Your task to perform on an android device: check android version Image 0: 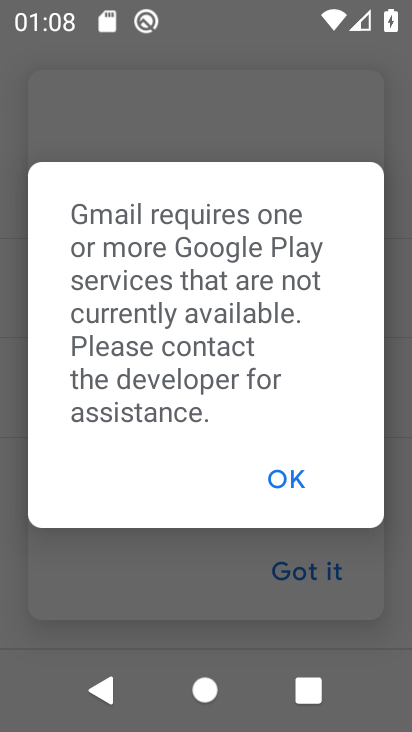
Step 0: drag from (268, 483) to (275, 110)
Your task to perform on an android device: check android version Image 1: 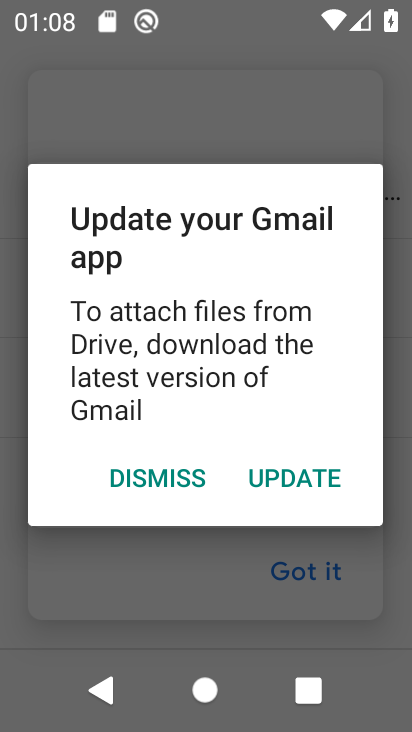
Step 1: press home button
Your task to perform on an android device: check android version Image 2: 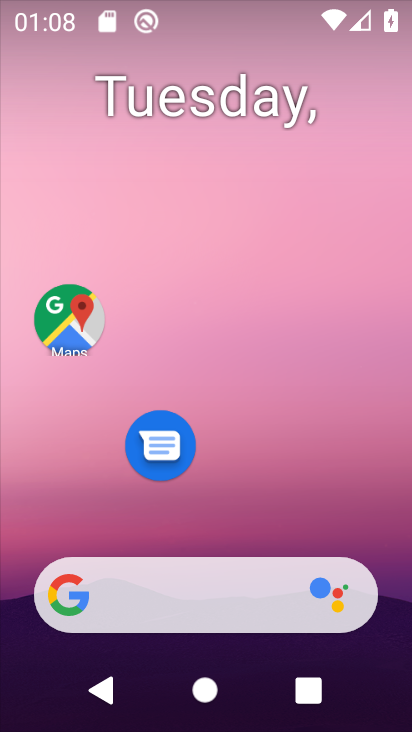
Step 2: drag from (273, 478) to (265, 89)
Your task to perform on an android device: check android version Image 3: 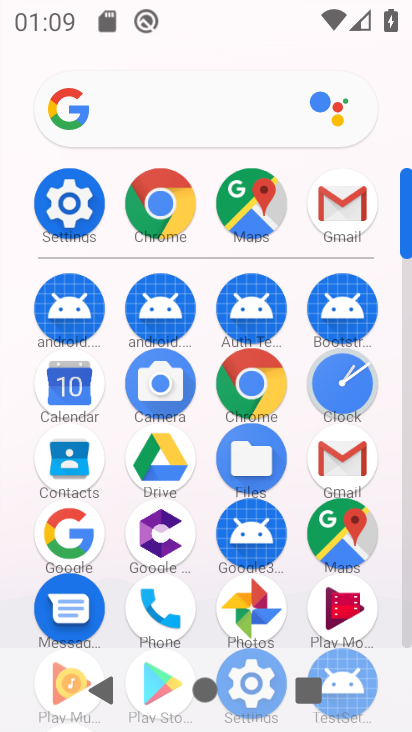
Step 3: click (47, 204)
Your task to perform on an android device: check android version Image 4: 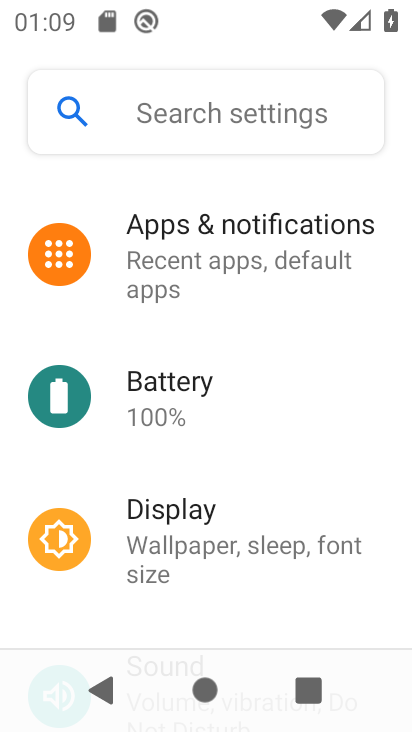
Step 4: drag from (244, 473) to (267, 125)
Your task to perform on an android device: check android version Image 5: 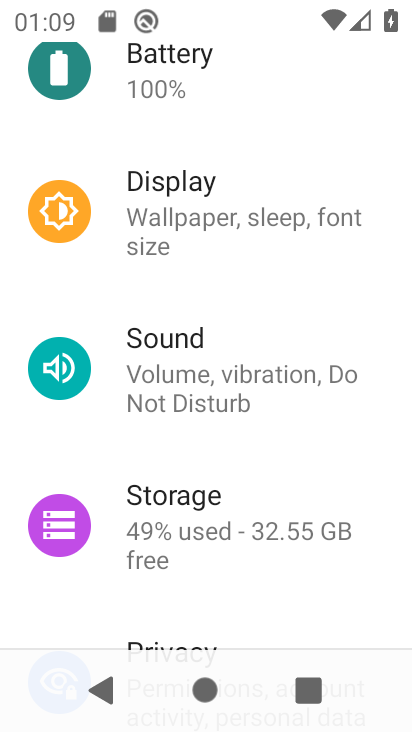
Step 5: drag from (248, 458) to (229, 146)
Your task to perform on an android device: check android version Image 6: 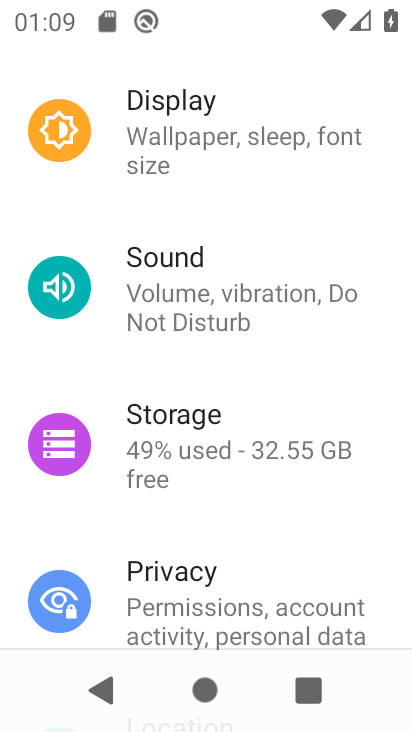
Step 6: drag from (240, 537) to (266, 164)
Your task to perform on an android device: check android version Image 7: 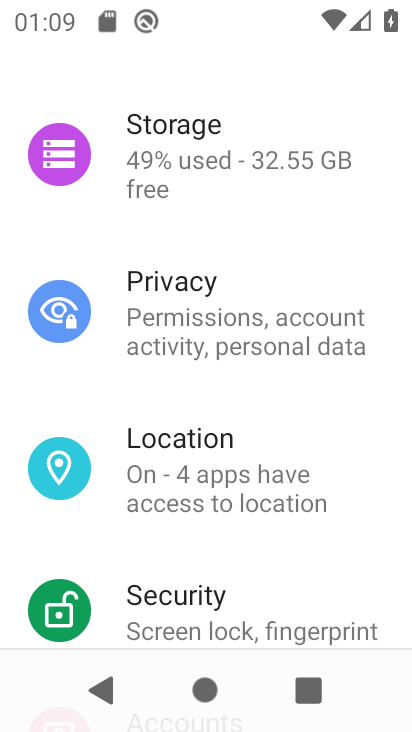
Step 7: drag from (259, 558) to (218, 170)
Your task to perform on an android device: check android version Image 8: 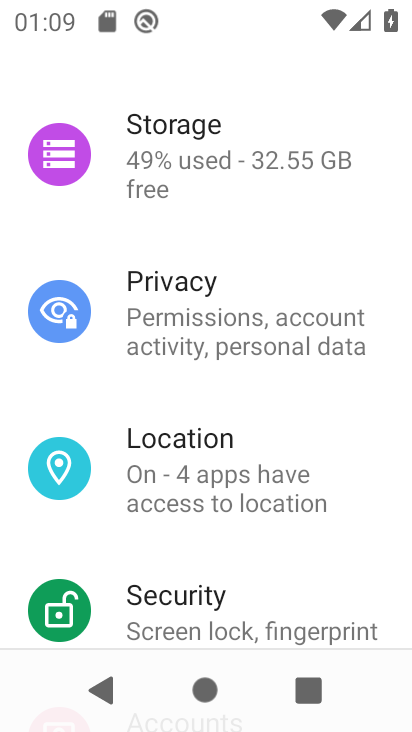
Step 8: drag from (258, 557) to (256, 261)
Your task to perform on an android device: check android version Image 9: 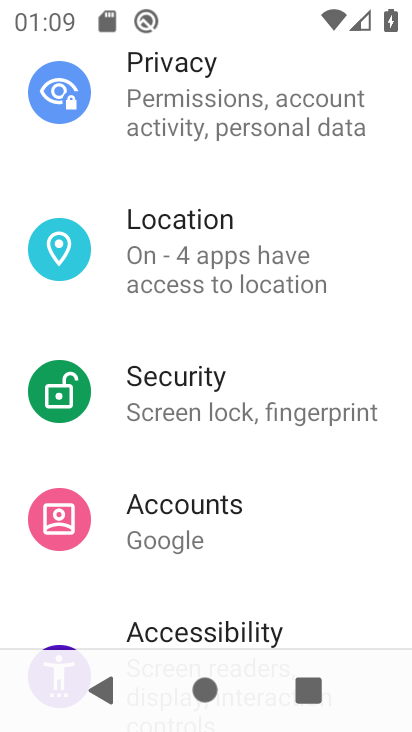
Step 9: drag from (211, 551) to (208, 101)
Your task to perform on an android device: check android version Image 10: 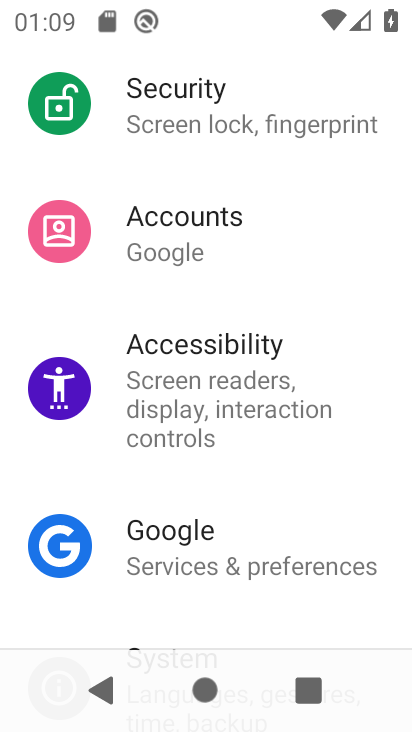
Step 10: drag from (258, 433) to (245, 96)
Your task to perform on an android device: check android version Image 11: 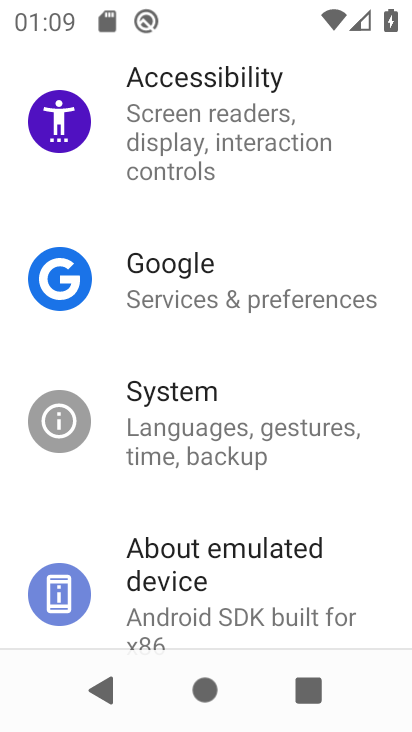
Step 11: drag from (269, 396) to (263, 5)
Your task to perform on an android device: check android version Image 12: 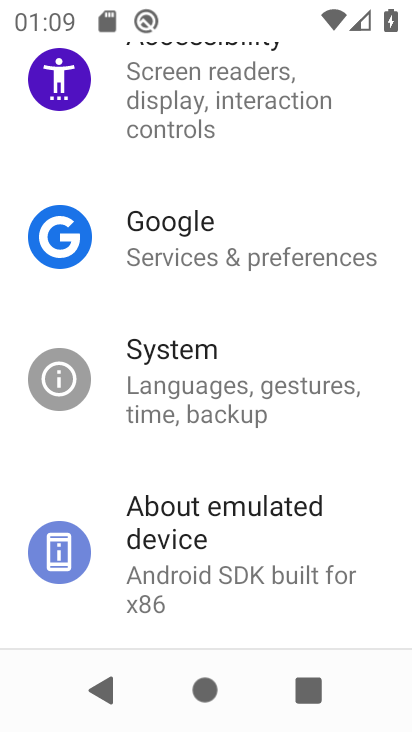
Step 12: click (237, 513)
Your task to perform on an android device: check android version Image 13: 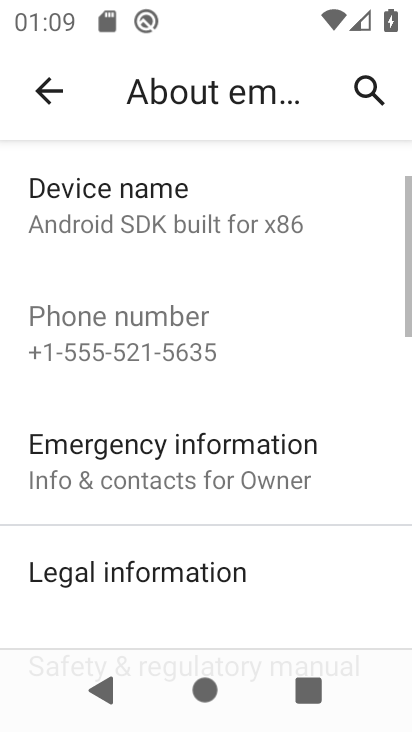
Step 13: task complete